Your task to perform on an android device: check data usage Image 0: 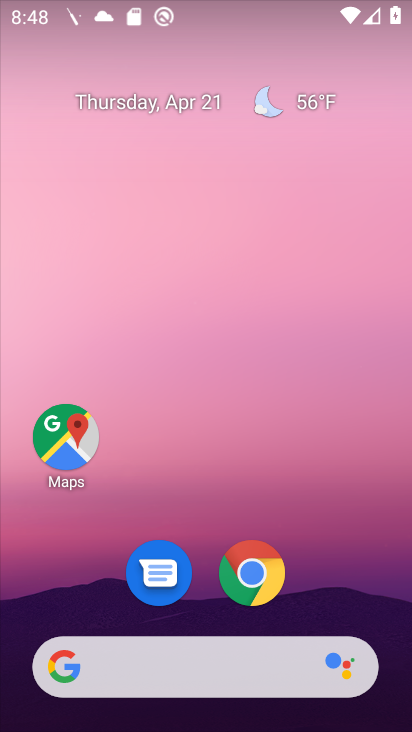
Step 0: drag from (185, 492) to (205, 21)
Your task to perform on an android device: check data usage Image 1: 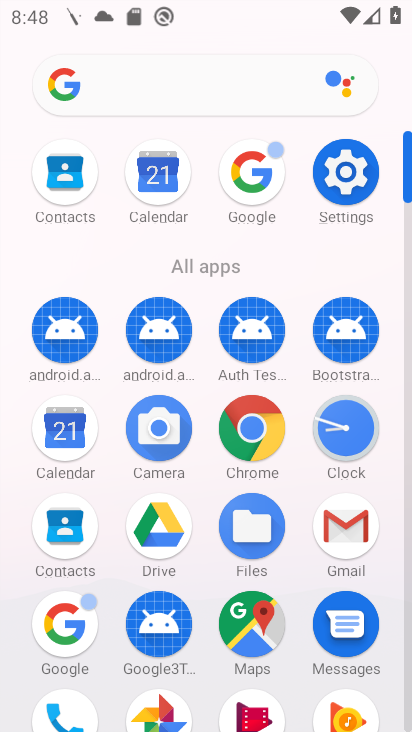
Step 1: click (347, 174)
Your task to perform on an android device: check data usage Image 2: 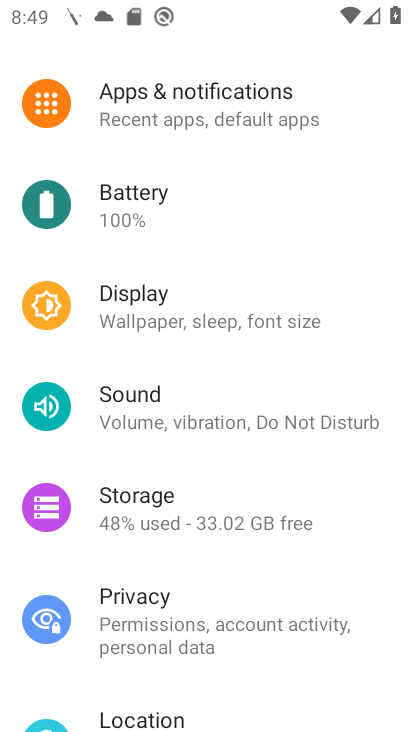
Step 2: drag from (261, 206) to (264, 332)
Your task to perform on an android device: check data usage Image 3: 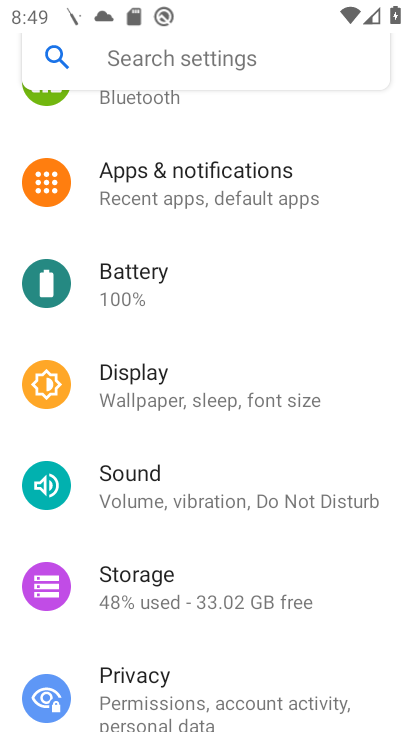
Step 3: drag from (231, 246) to (219, 359)
Your task to perform on an android device: check data usage Image 4: 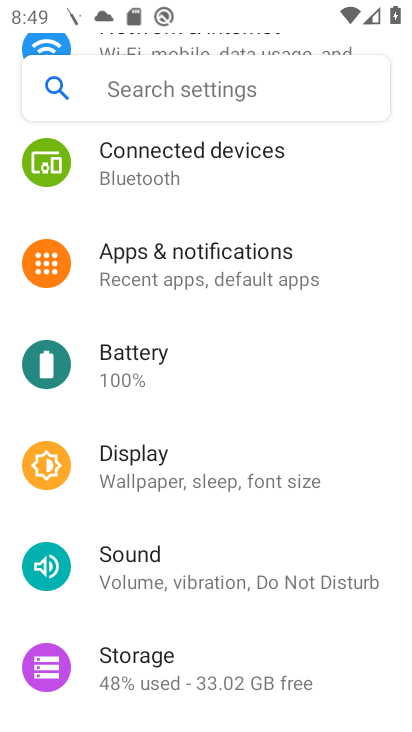
Step 4: drag from (235, 207) to (292, 360)
Your task to perform on an android device: check data usage Image 5: 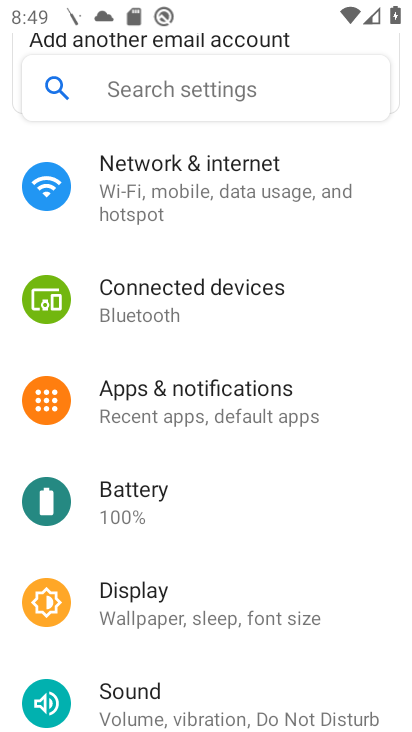
Step 5: click (224, 160)
Your task to perform on an android device: check data usage Image 6: 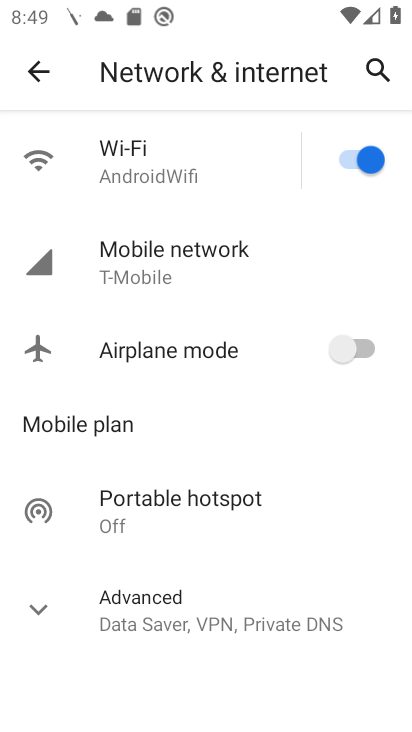
Step 6: click (230, 249)
Your task to perform on an android device: check data usage Image 7: 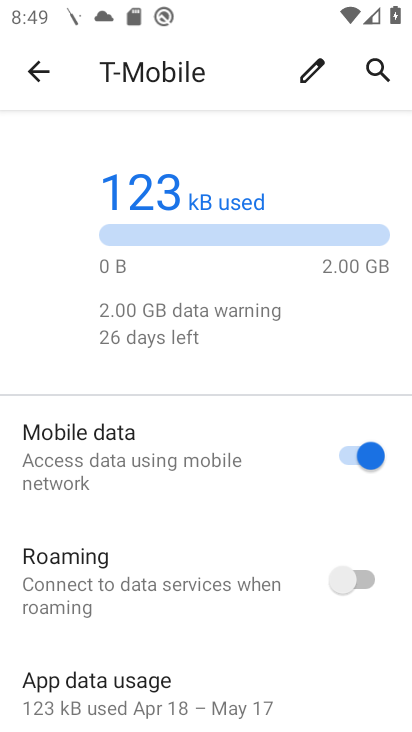
Step 7: task complete